Your task to perform on an android device: Search for vegetarian restaurants on Maps Image 0: 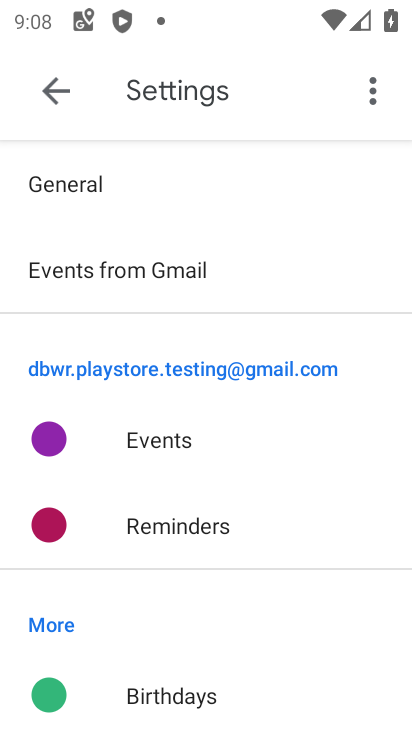
Step 0: press home button
Your task to perform on an android device: Search for vegetarian restaurants on Maps Image 1: 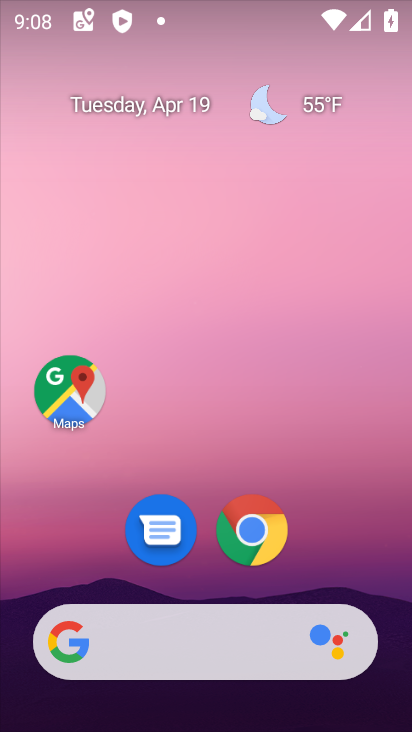
Step 1: click (69, 395)
Your task to perform on an android device: Search for vegetarian restaurants on Maps Image 2: 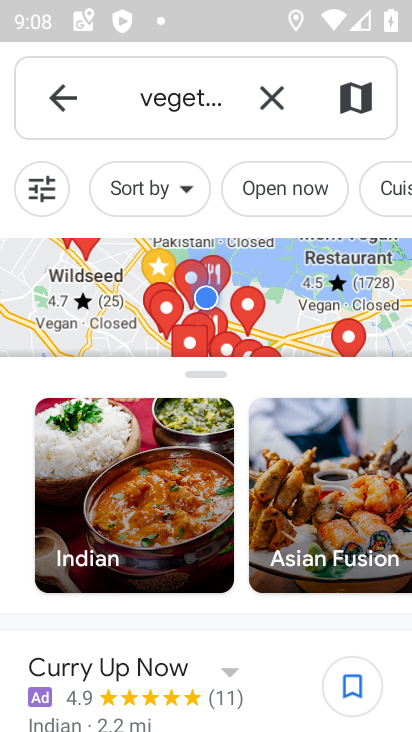
Step 2: task complete